Your task to perform on an android device: Go to privacy settings Image 0: 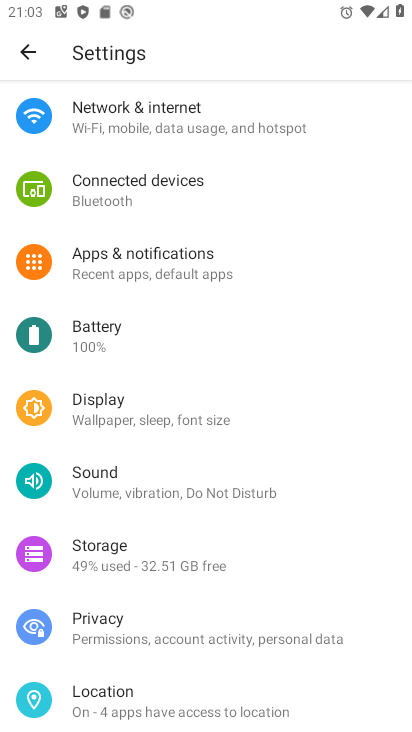
Step 0: press home button
Your task to perform on an android device: Go to privacy settings Image 1: 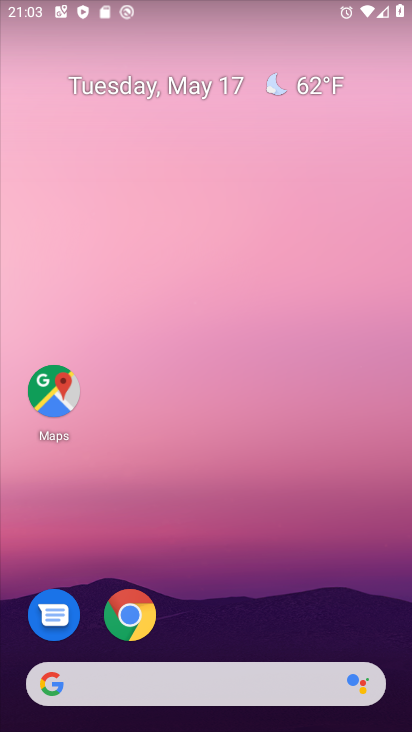
Step 1: drag from (260, 622) to (297, 91)
Your task to perform on an android device: Go to privacy settings Image 2: 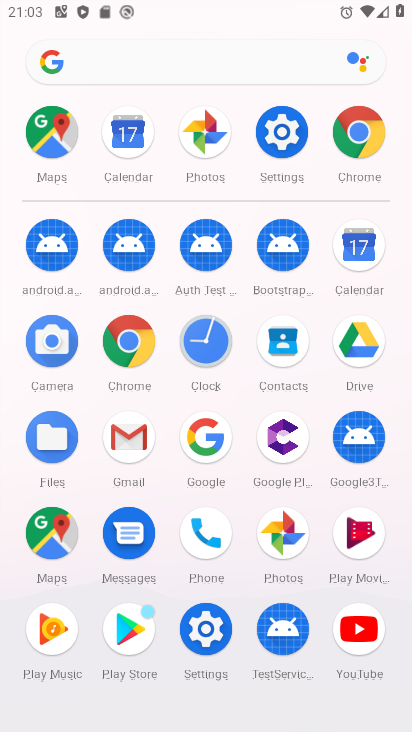
Step 2: click (282, 139)
Your task to perform on an android device: Go to privacy settings Image 3: 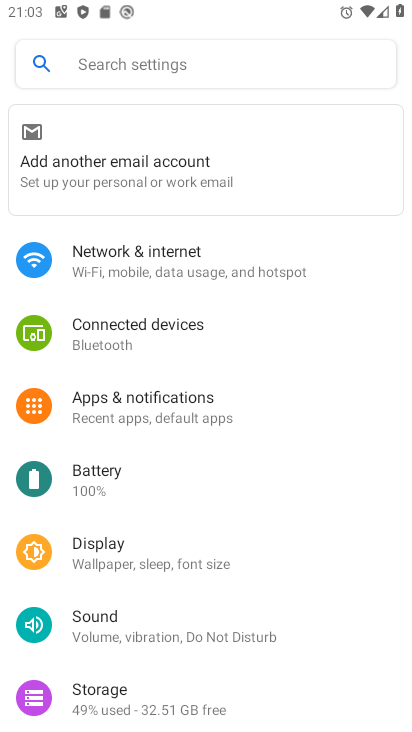
Step 3: drag from (304, 623) to (310, 169)
Your task to perform on an android device: Go to privacy settings Image 4: 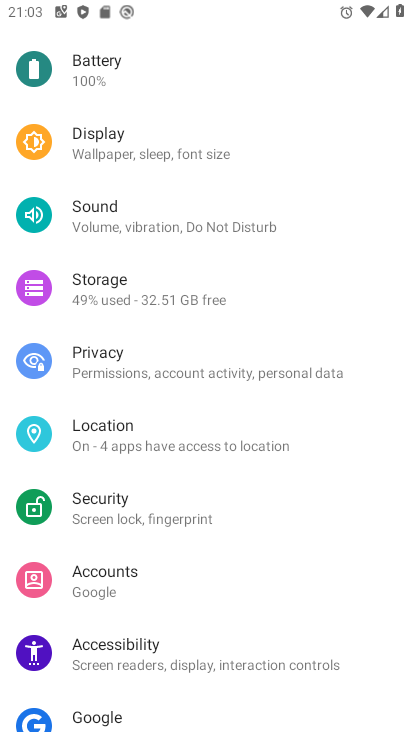
Step 4: click (135, 356)
Your task to perform on an android device: Go to privacy settings Image 5: 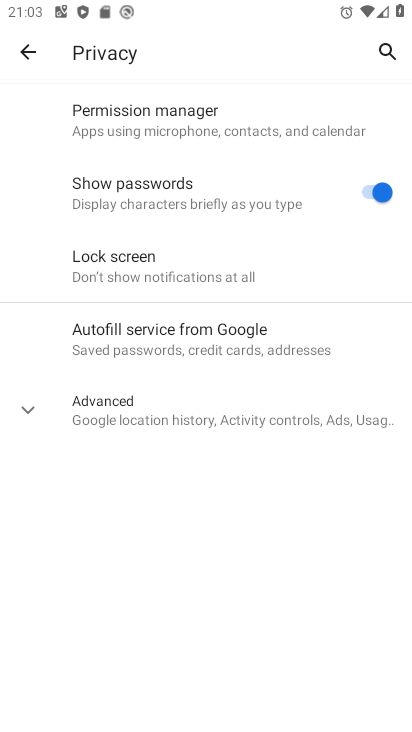
Step 5: task complete